Your task to perform on an android device: Show me the alarms in the clock app Image 0: 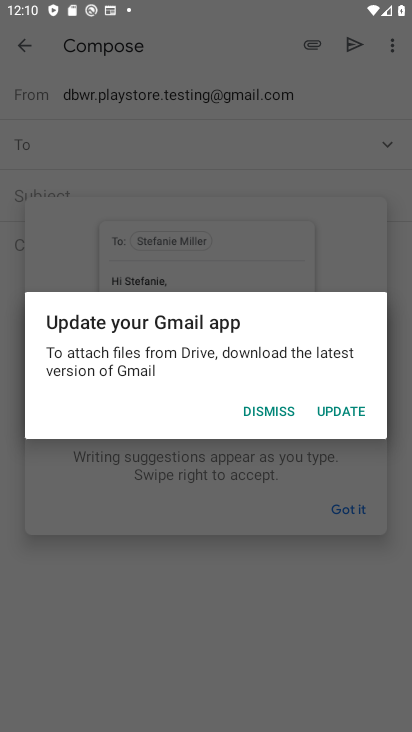
Step 0: press home button
Your task to perform on an android device: Show me the alarms in the clock app Image 1: 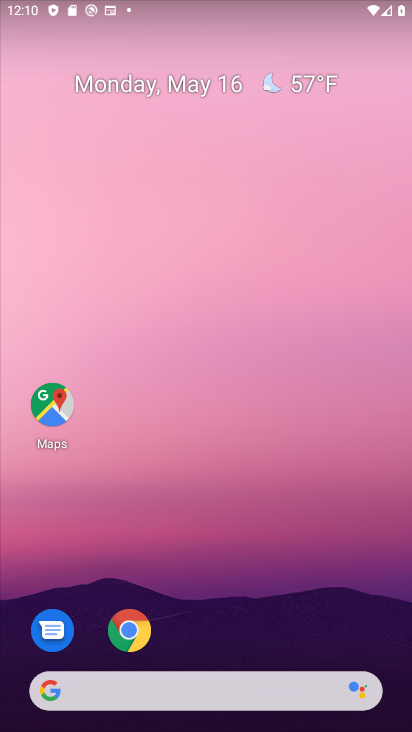
Step 1: drag from (197, 661) to (200, 6)
Your task to perform on an android device: Show me the alarms in the clock app Image 2: 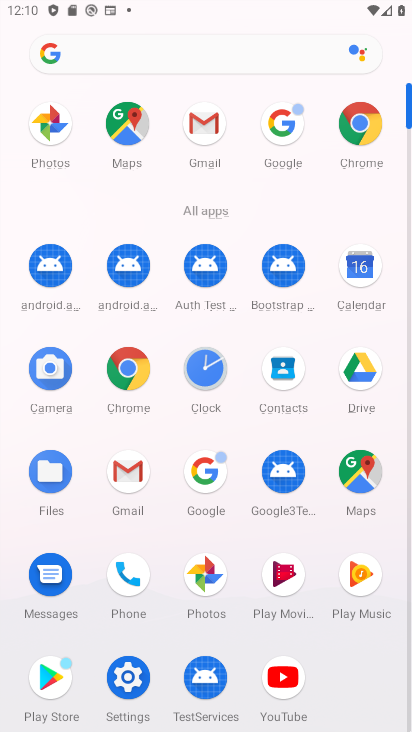
Step 2: click (213, 367)
Your task to perform on an android device: Show me the alarms in the clock app Image 3: 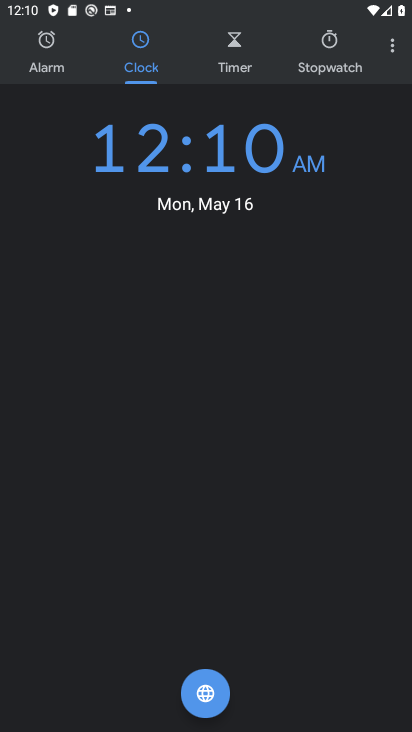
Step 3: click (43, 61)
Your task to perform on an android device: Show me the alarms in the clock app Image 4: 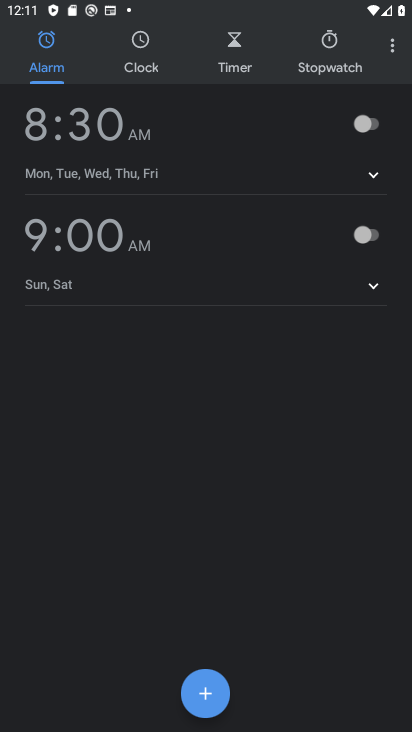
Step 4: task complete